Your task to perform on an android device: Add lg ultragear to the cart on amazon.com, then select checkout. Image 0: 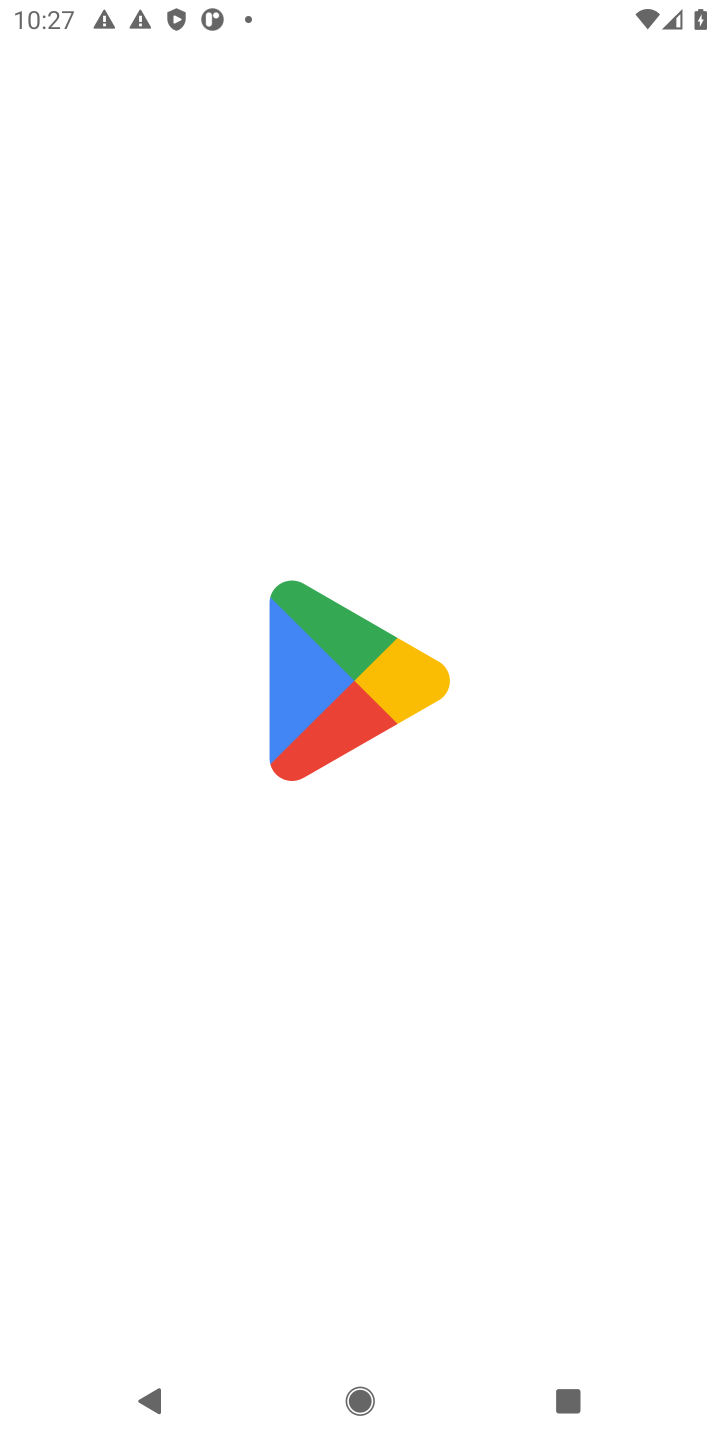
Step 0: press home button
Your task to perform on an android device: Add lg ultragear to the cart on amazon.com, then select checkout. Image 1: 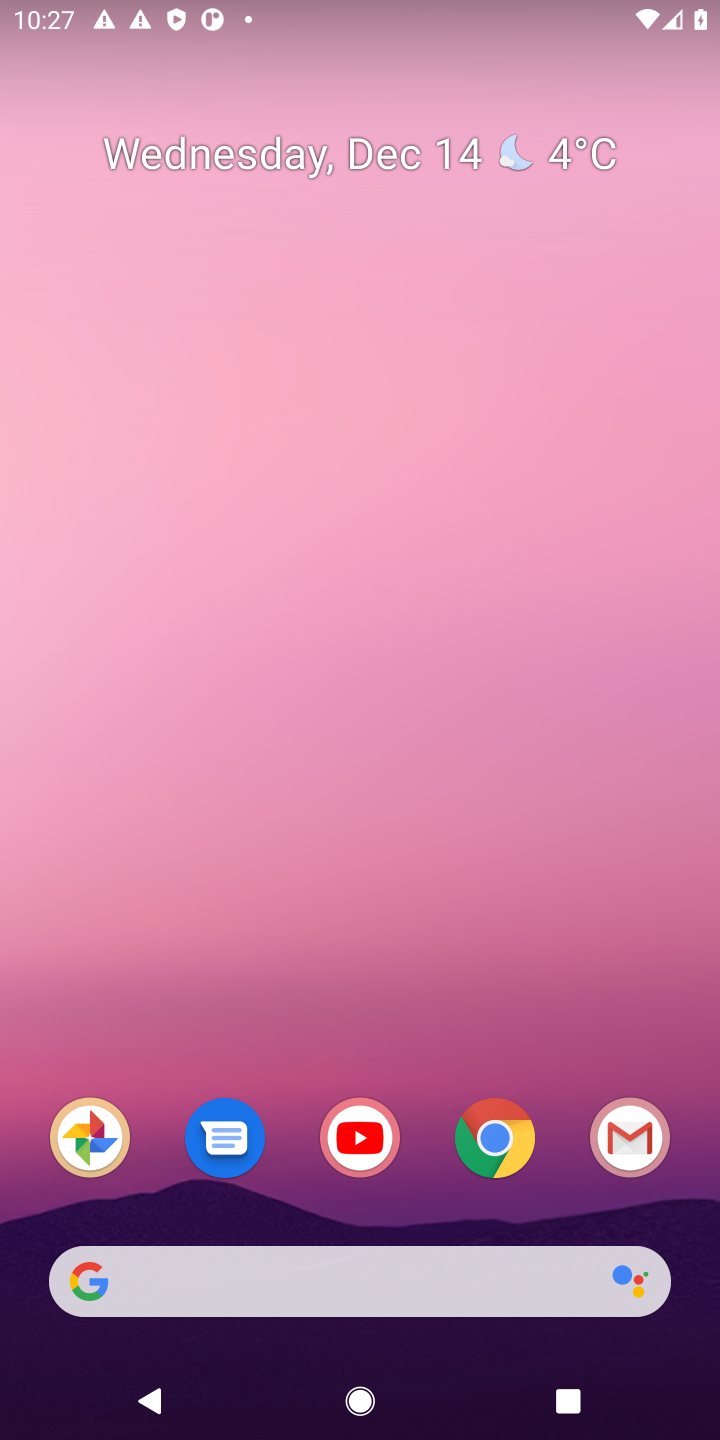
Step 1: click (505, 1146)
Your task to perform on an android device: Add lg ultragear to the cart on amazon.com, then select checkout. Image 2: 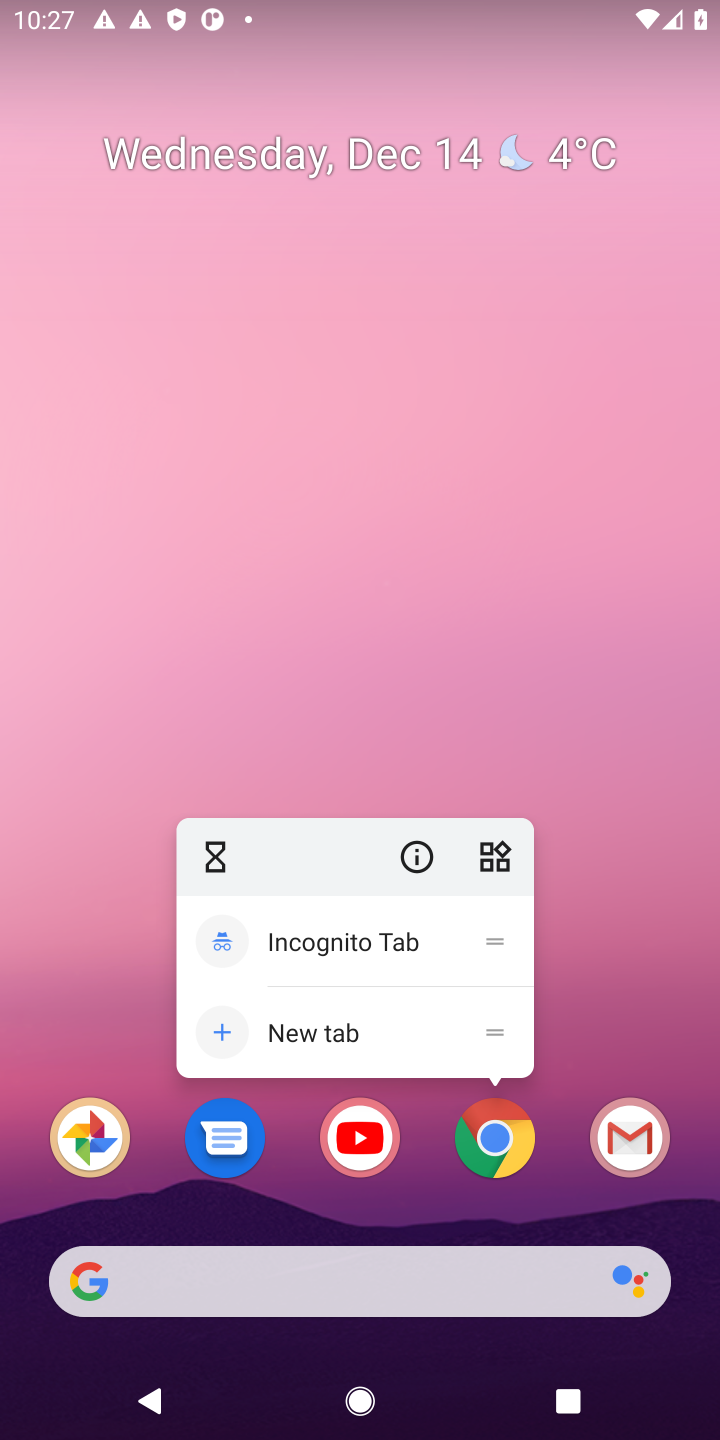
Step 2: click (505, 1146)
Your task to perform on an android device: Add lg ultragear to the cart on amazon.com, then select checkout. Image 3: 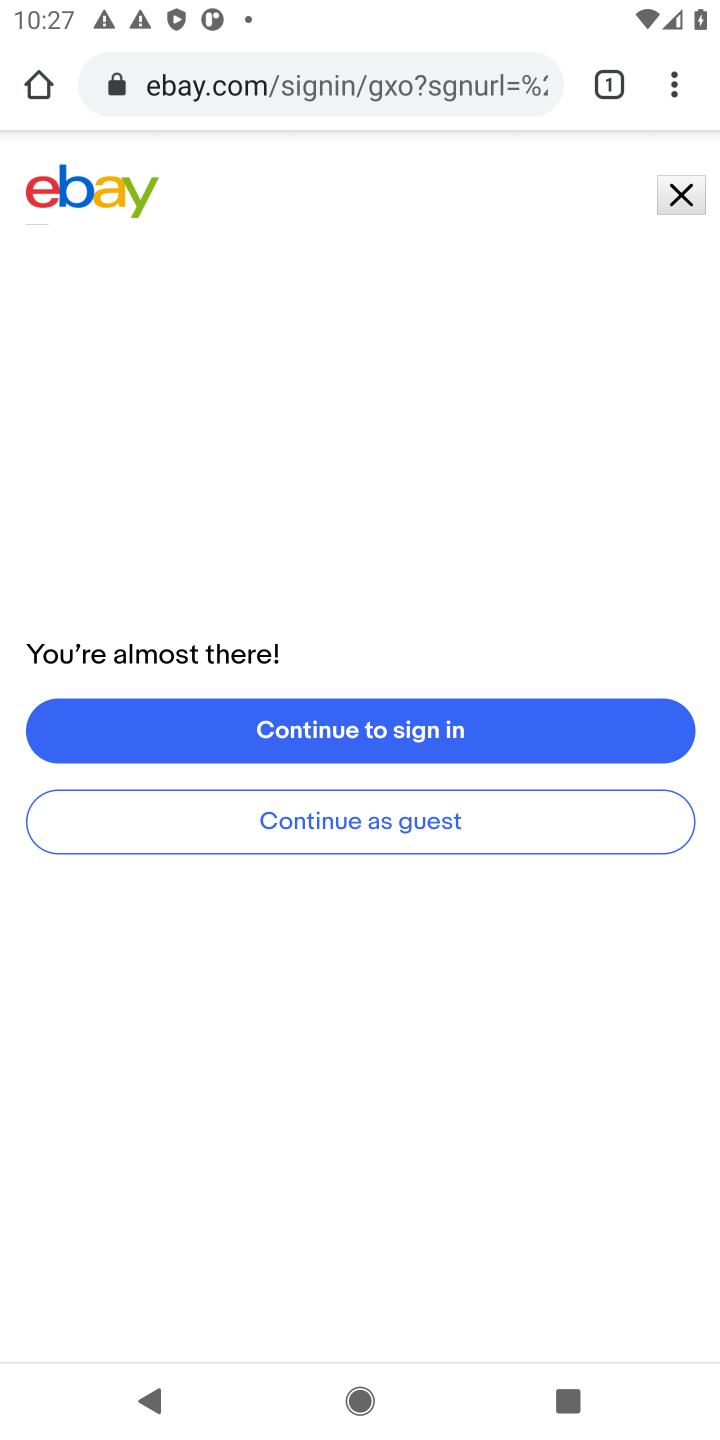
Step 3: click (385, 97)
Your task to perform on an android device: Add lg ultragear to the cart on amazon.com, then select checkout. Image 4: 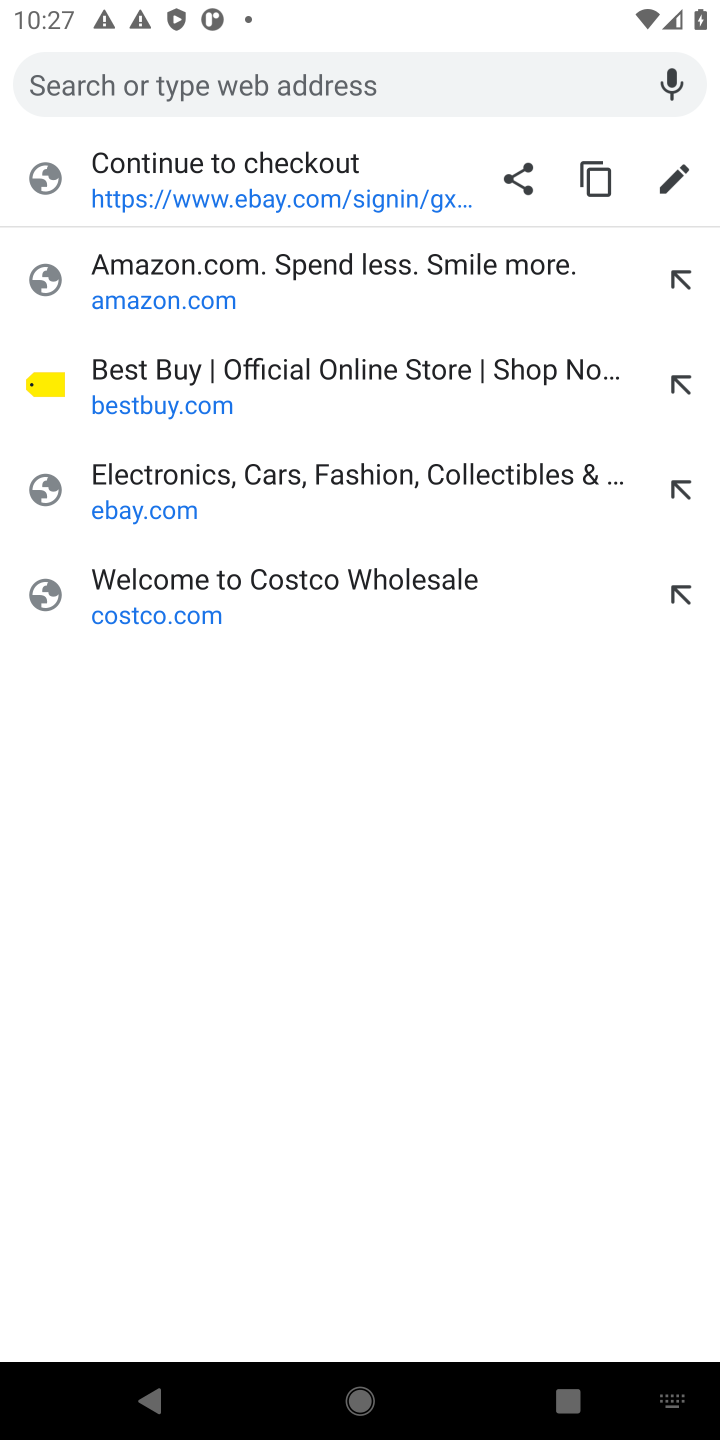
Step 4: click (169, 271)
Your task to perform on an android device: Add lg ultragear to the cart on amazon.com, then select checkout. Image 5: 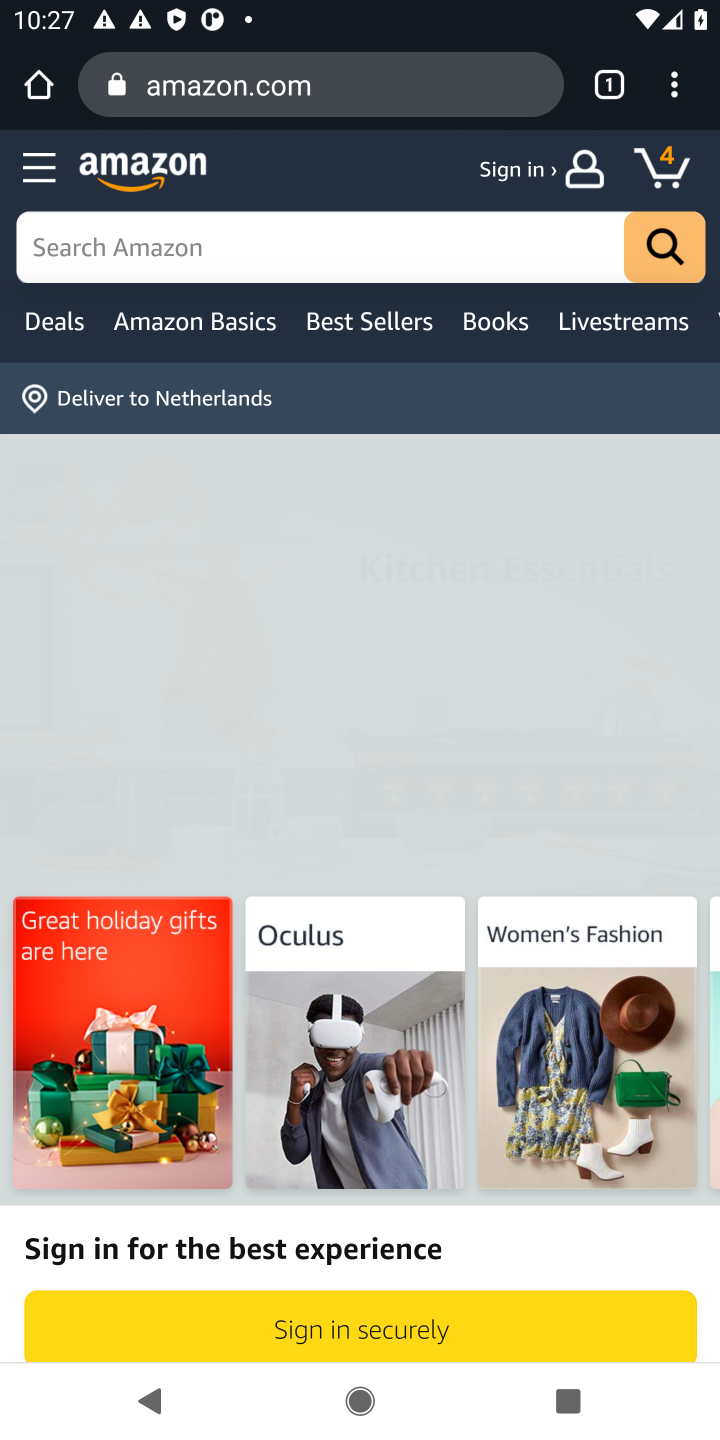
Step 5: click (105, 250)
Your task to perform on an android device: Add lg ultragear to the cart on amazon.com, then select checkout. Image 6: 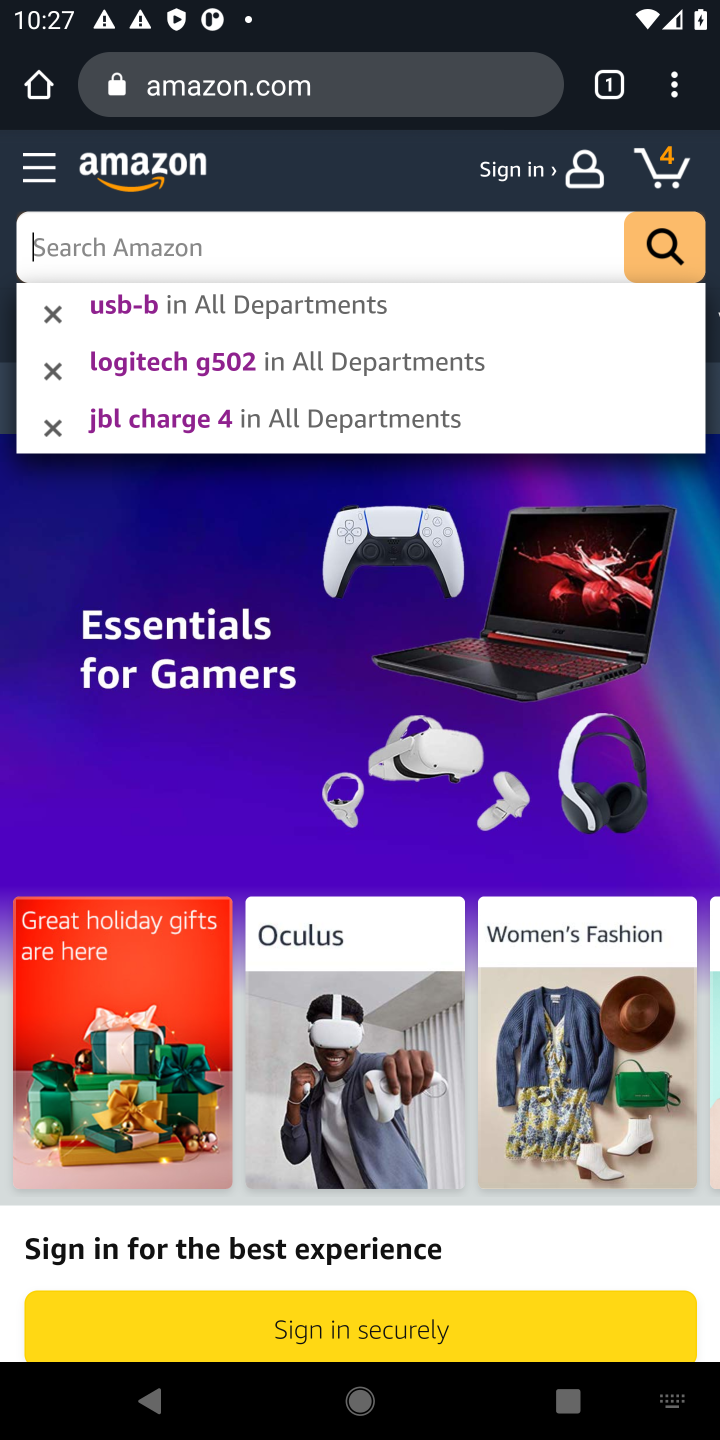
Step 6: type " lg ultragear"
Your task to perform on an android device: Add lg ultragear to the cart on amazon.com, then select checkout. Image 7: 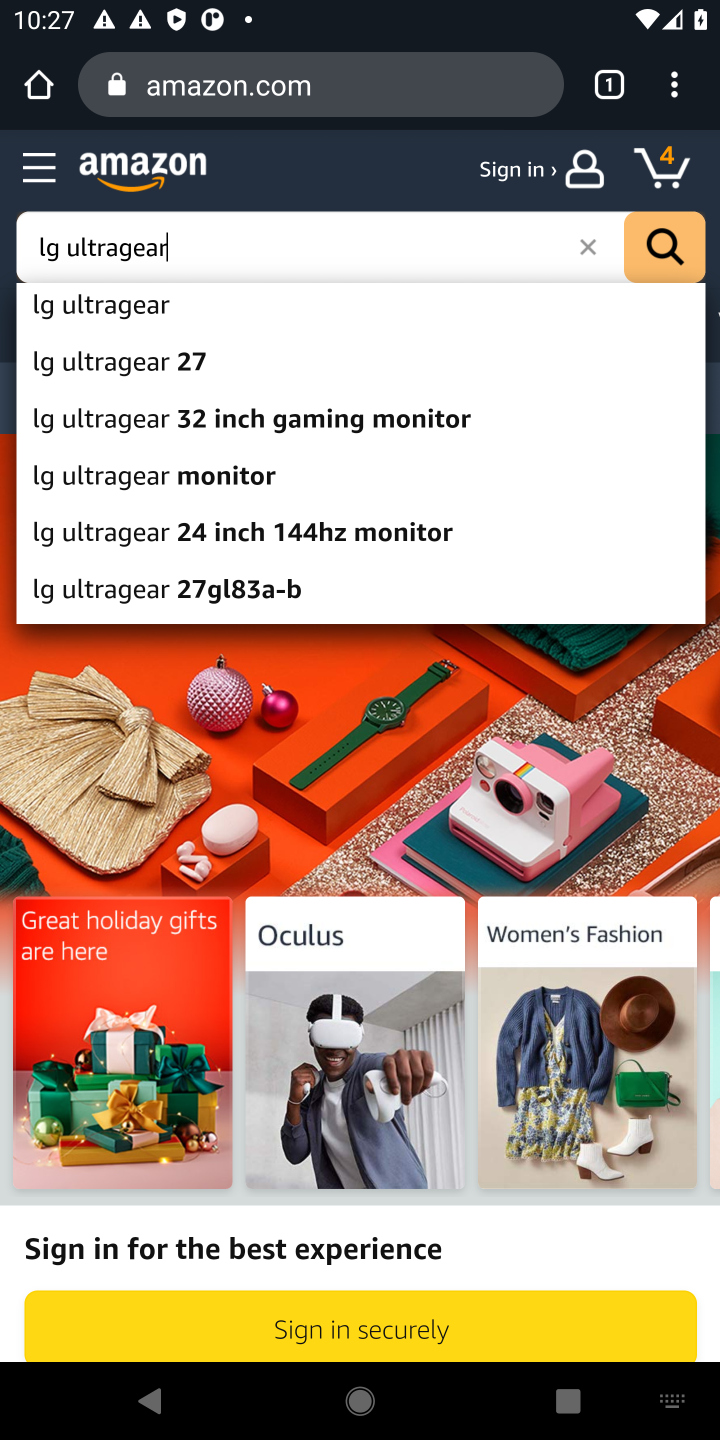
Step 7: click (146, 319)
Your task to perform on an android device: Add lg ultragear to the cart on amazon.com, then select checkout. Image 8: 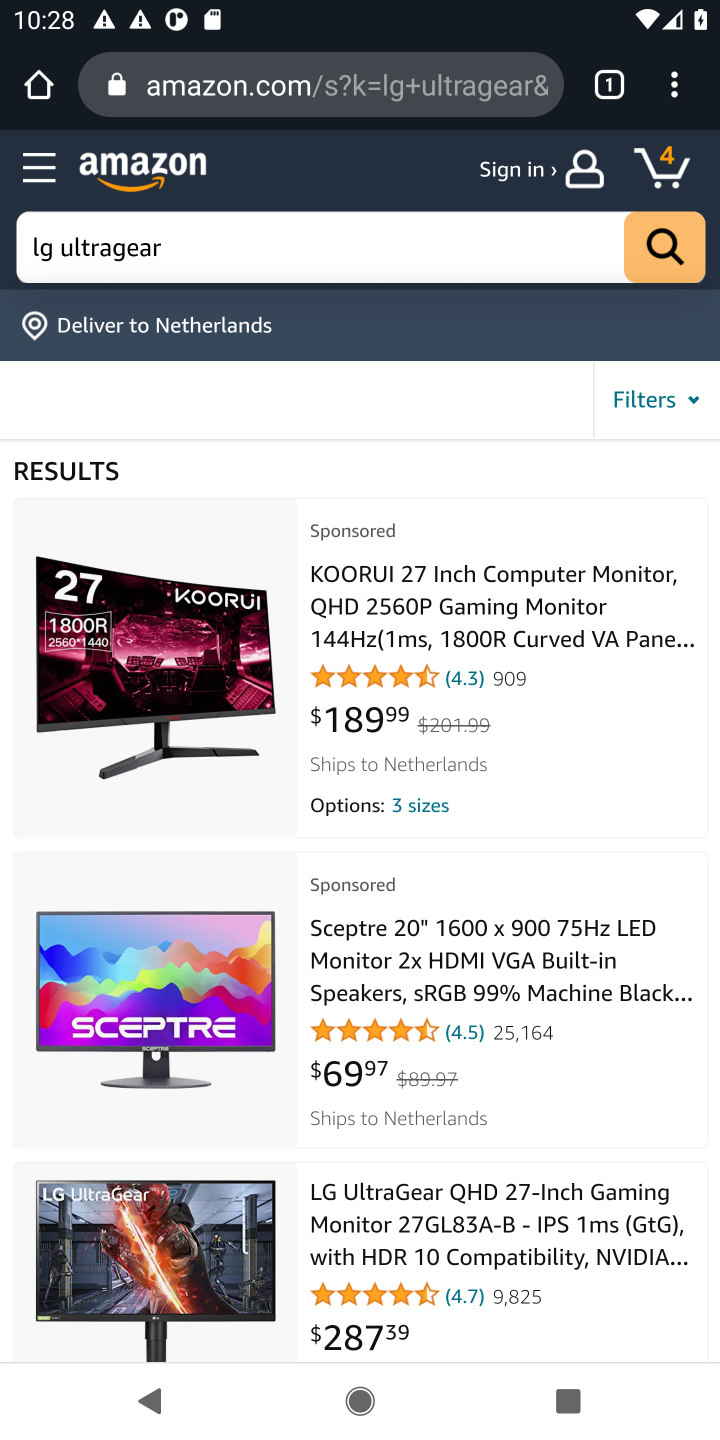
Step 8: click (409, 1221)
Your task to perform on an android device: Add lg ultragear to the cart on amazon.com, then select checkout. Image 9: 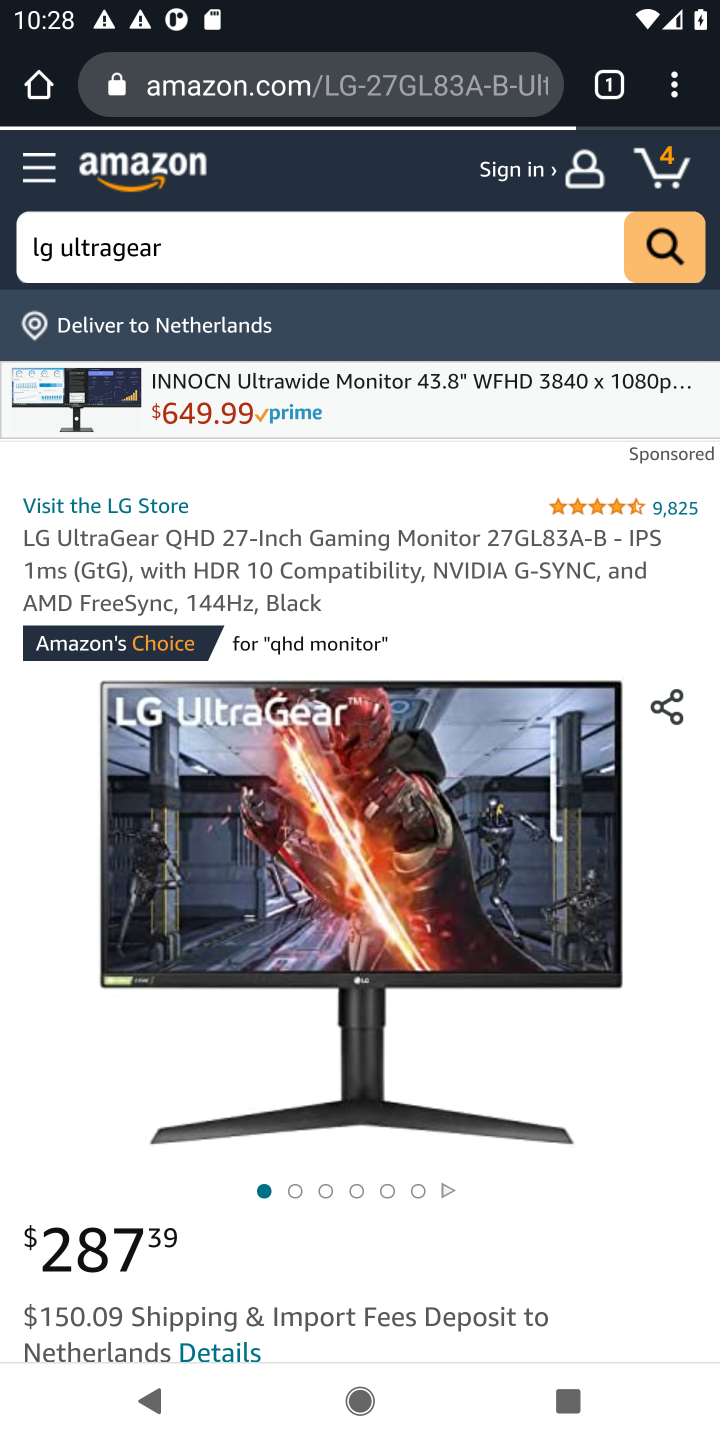
Step 9: drag from (380, 1098) to (434, 303)
Your task to perform on an android device: Add lg ultragear to the cart on amazon.com, then select checkout. Image 10: 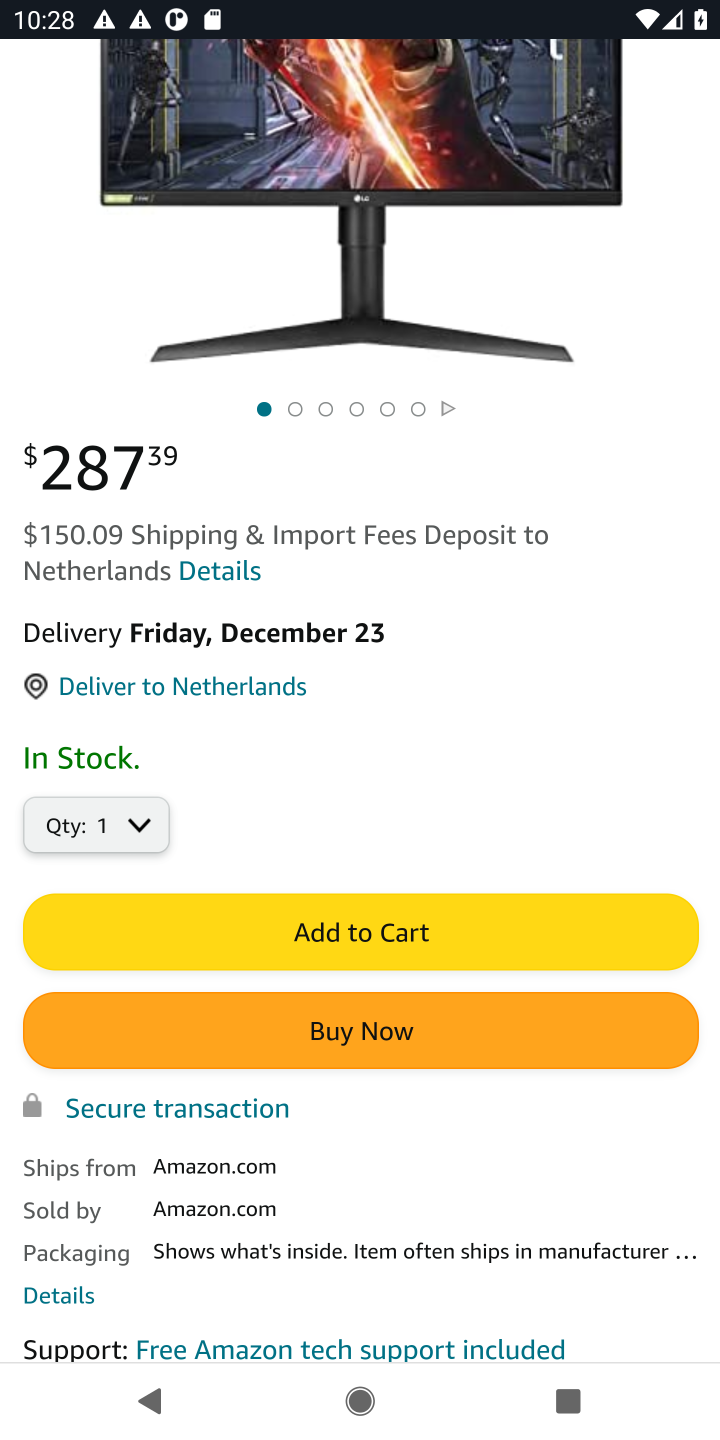
Step 10: click (325, 937)
Your task to perform on an android device: Add lg ultragear to the cart on amazon.com, then select checkout. Image 11: 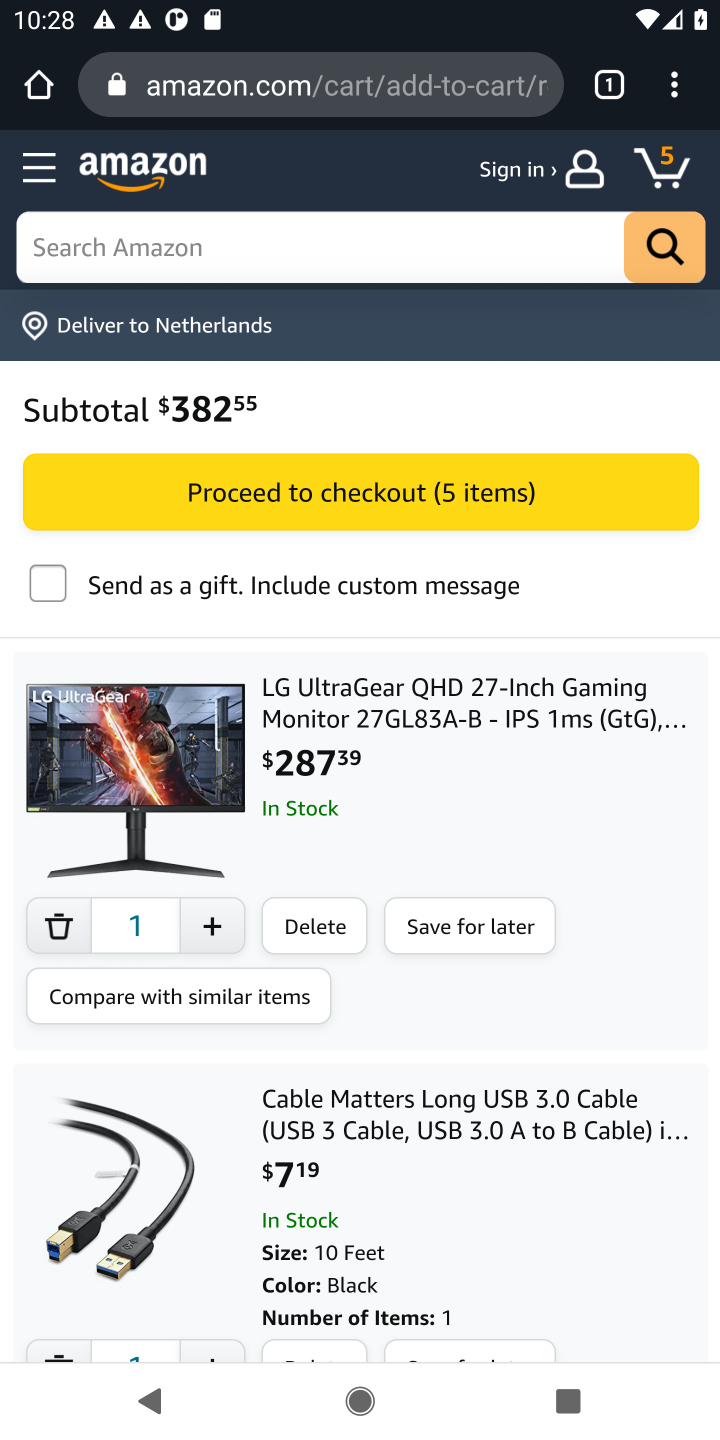
Step 11: click (305, 489)
Your task to perform on an android device: Add lg ultragear to the cart on amazon.com, then select checkout. Image 12: 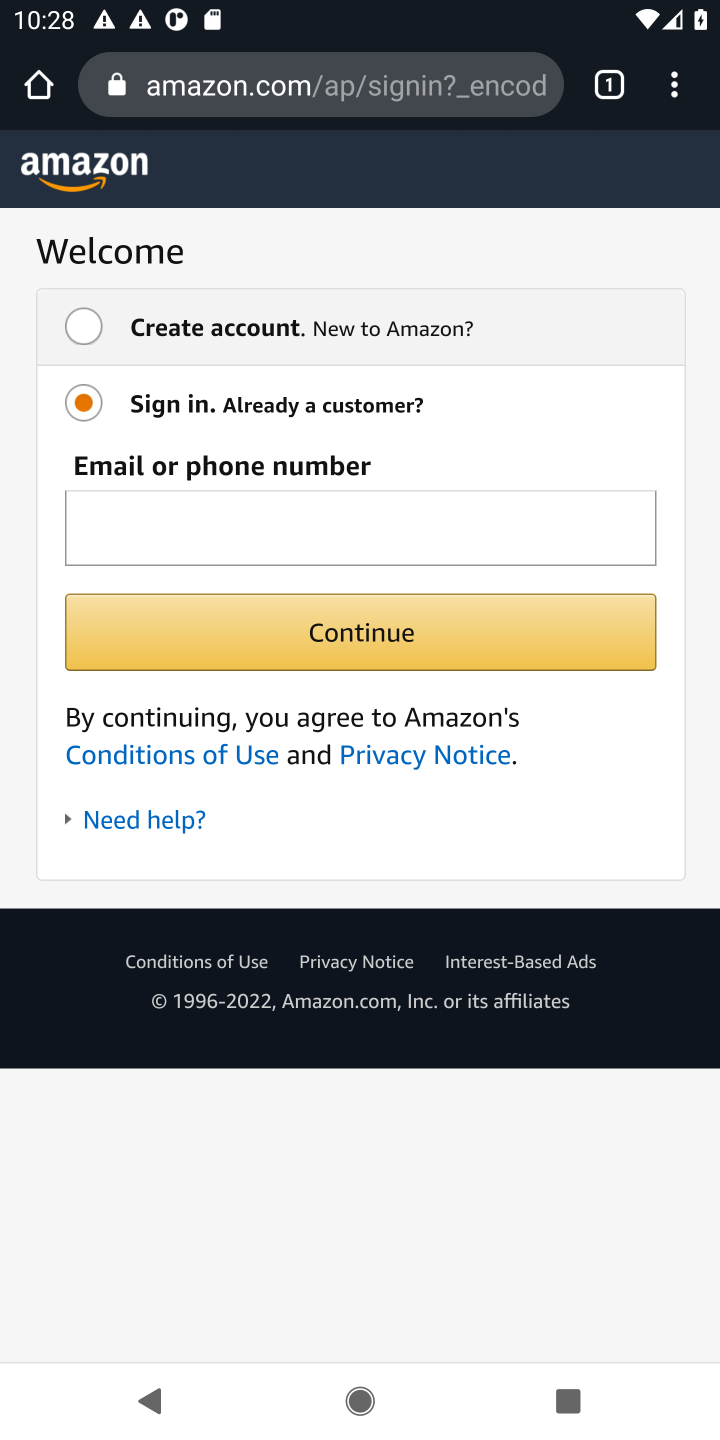
Step 12: task complete